Your task to perform on an android device: Go to Amazon Image 0: 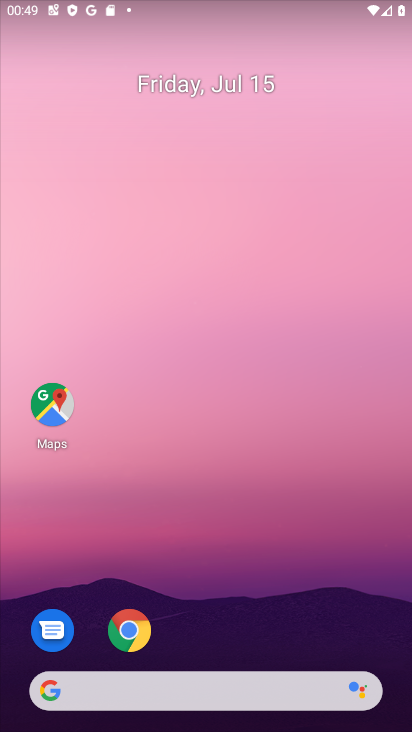
Step 0: click (144, 626)
Your task to perform on an android device: Go to Amazon Image 1: 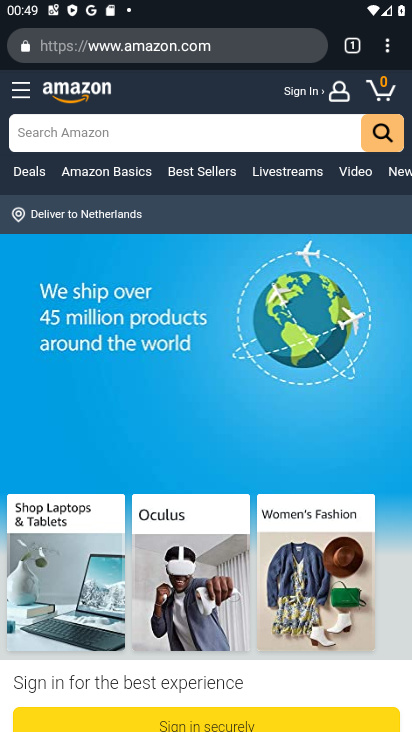
Step 1: task complete